Your task to perform on an android device: Search for vegetarian restaurants on Maps Image 0: 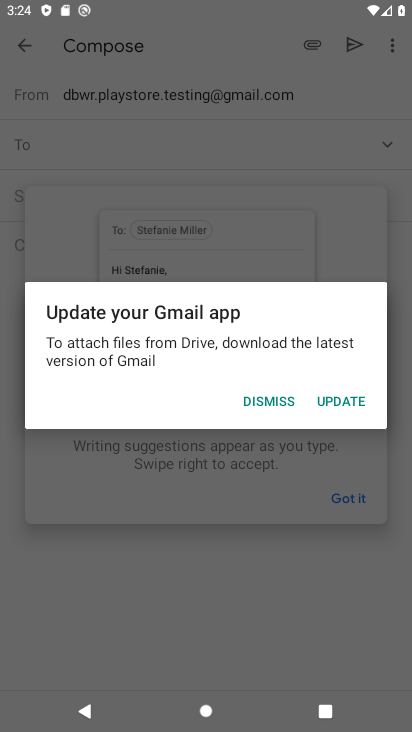
Step 0: press home button
Your task to perform on an android device: Search for vegetarian restaurants on Maps Image 1: 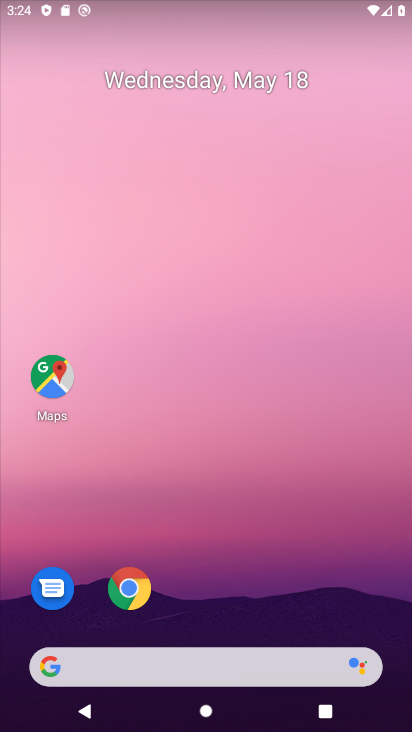
Step 1: click (61, 359)
Your task to perform on an android device: Search for vegetarian restaurants on Maps Image 2: 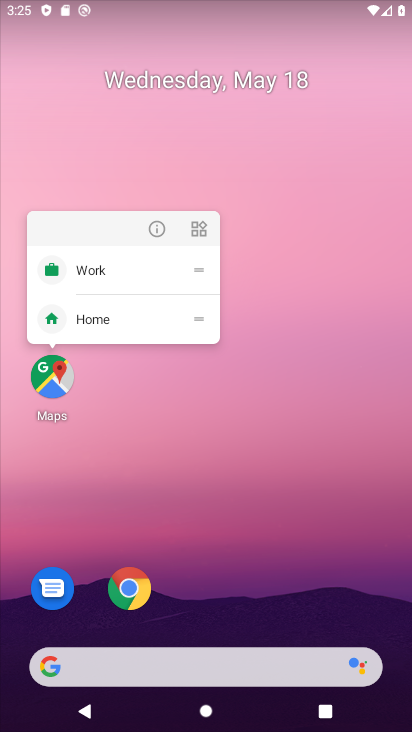
Step 2: click (61, 357)
Your task to perform on an android device: Search for vegetarian restaurants on Maps Image 3: 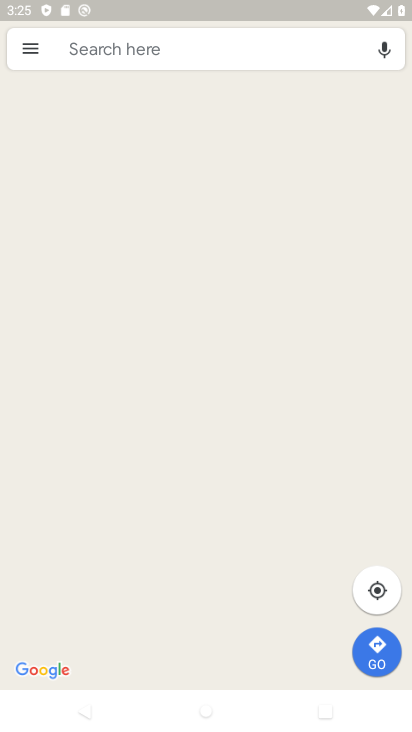
Step 3: click (177, 61)
Your task to perform on an android device: Search for vegetarian restaurants on Maps Image 4: 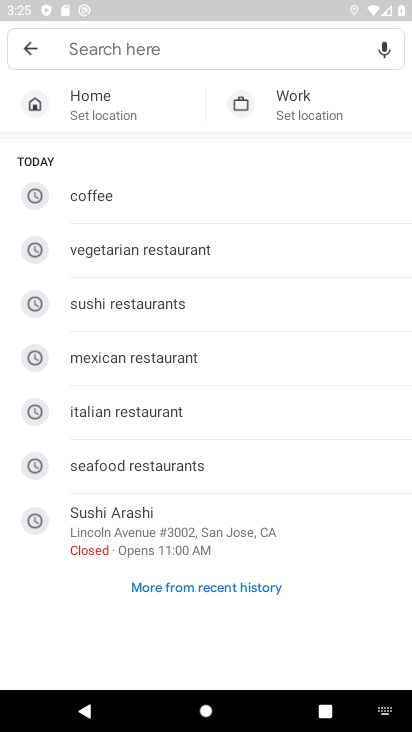
Step 4: type "vege"
Your task to perform on an android device: Search for vegetarian restaurants on Maps Image 5: 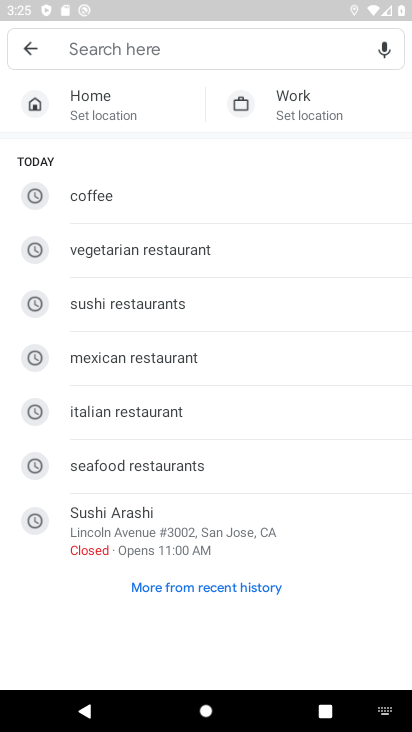
Step 5: click (103, 241)
Your task to perform on an android device: Search for vegetarian restaurants on Maps Image 6: 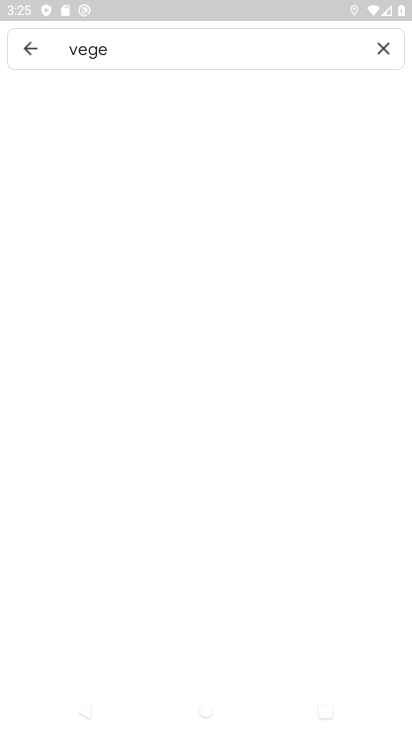
Step 6: task complete